Your task to perform on an android device: turn notification dots off Image 0: 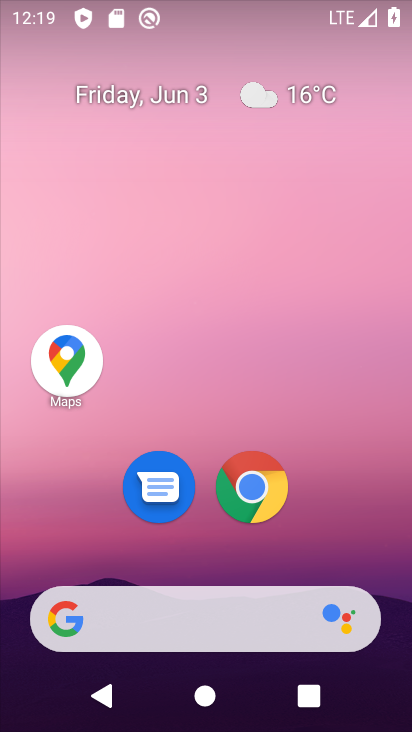
Step 0: drag from (346, 543) to (276, 104)
Your task to perform on an android device: turn notification dots off Image 1: 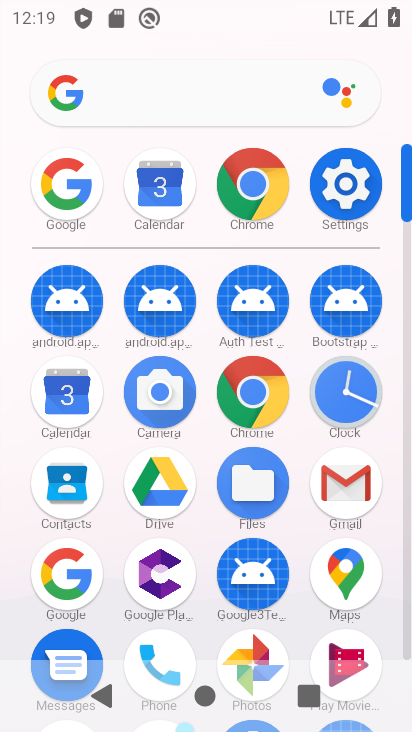
Step 1: click (341, 195)
Your task to perform on an android device: turn notification dots off Image 2: 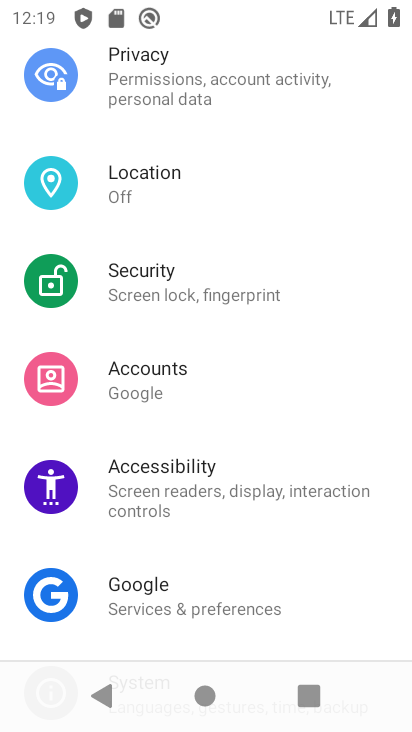
Step 2: drag from (386, 80) to (342, 664)
Your task to perform on an android device: turn notification dots off Image 3: 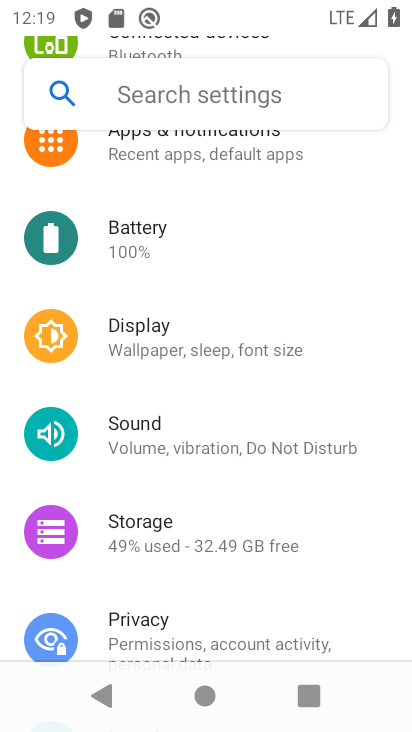
Step 3: click (176, 139)
Your task to perform on an android device: turn notification dots off Image 4: 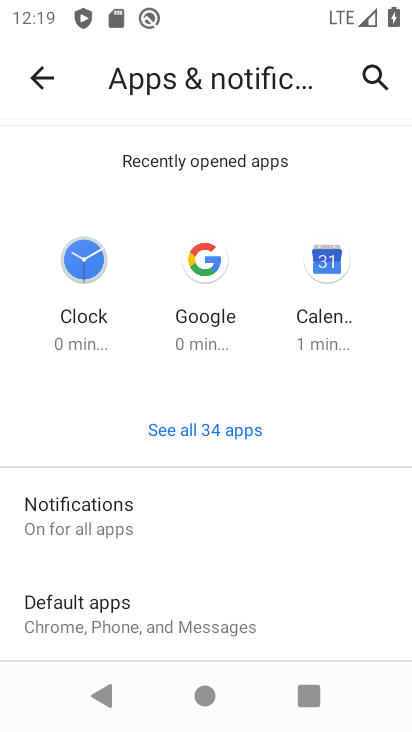
Step 4: drag from (243, 571) to (237, 293)
Your task to perform on an android device: turn notification dots off Image 5: 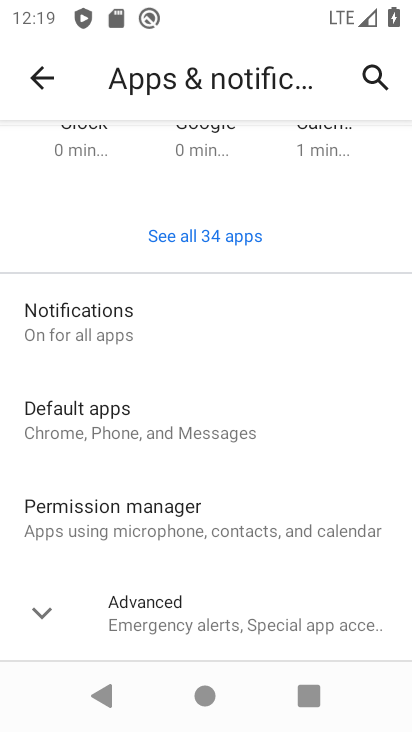
Step 5: click (210, 304)
Your task to perform on an android device: turn notification dots off Image 6: 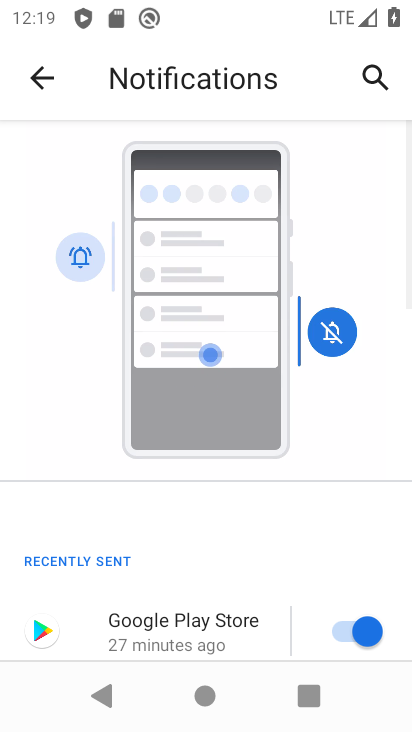
Step 6: drag from (328, 603) to (325, 223)
Your task to perform on an android device: turn notification dots off Image 7: 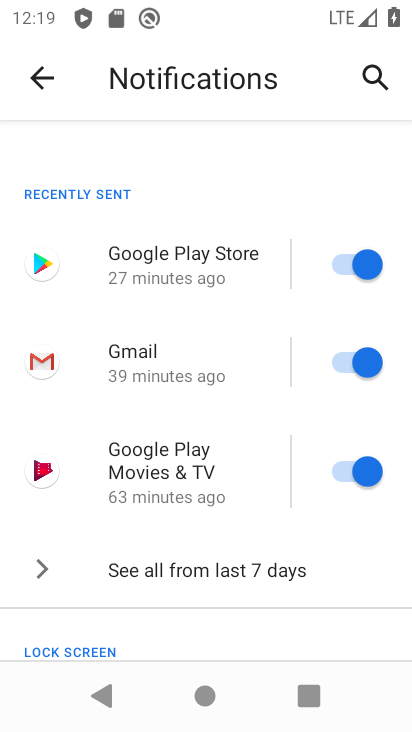
Step 7: drag from (367, 601) to (366, 103)
Your task to perform on an android device: turn notification dots off Image 8: 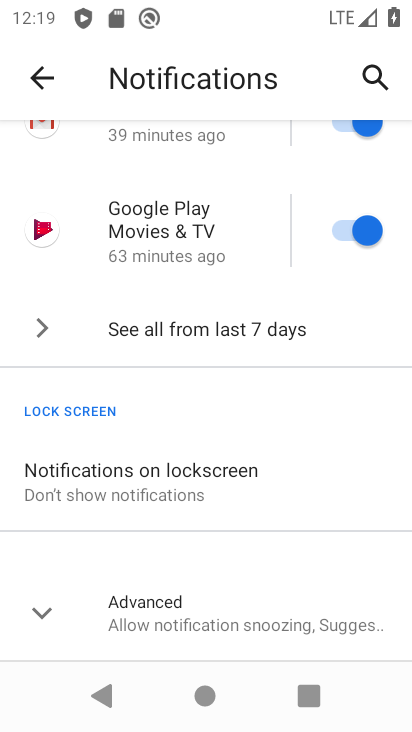
Step 8: click (37, 616)
Your task to perform on an android device: turn notification dots off Image 9: 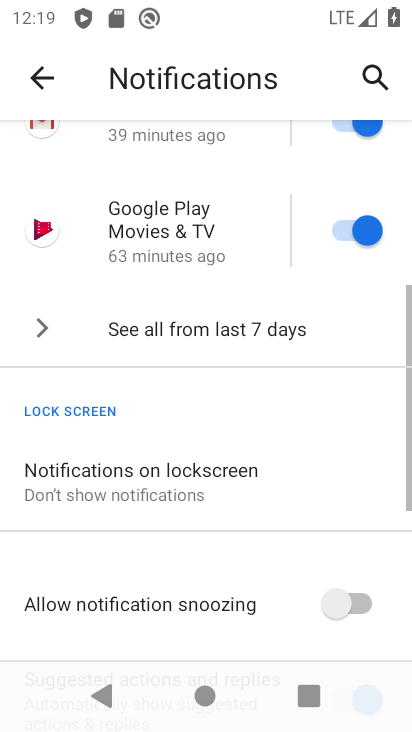
Step 9: drag from (296, 549) to (318, 191)
Your task to perform on an android device: turn notification dots off Image 10: 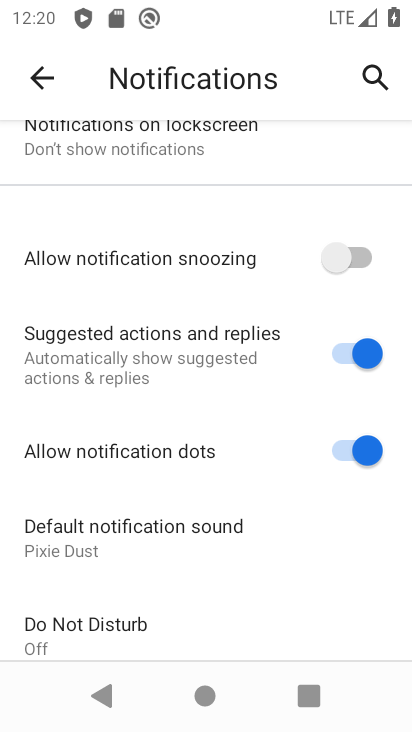
Step 10: click (370, 448)
Your task to perform on an android device: turn notification dots off Image 11: 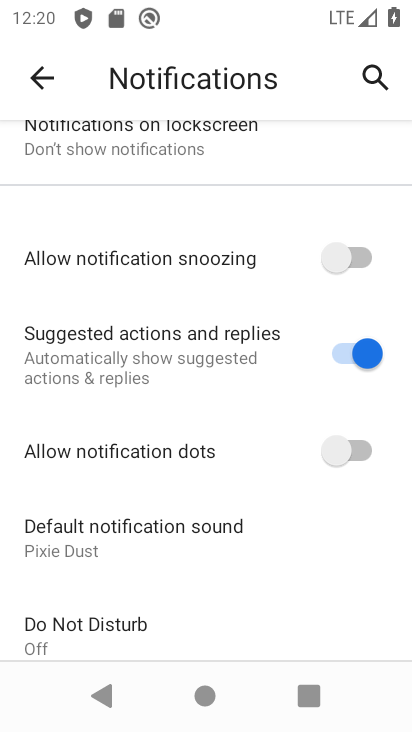
Step 11: task complete